Your task to perform on an android device: What's the weather going to be tomorrow? Image 0: 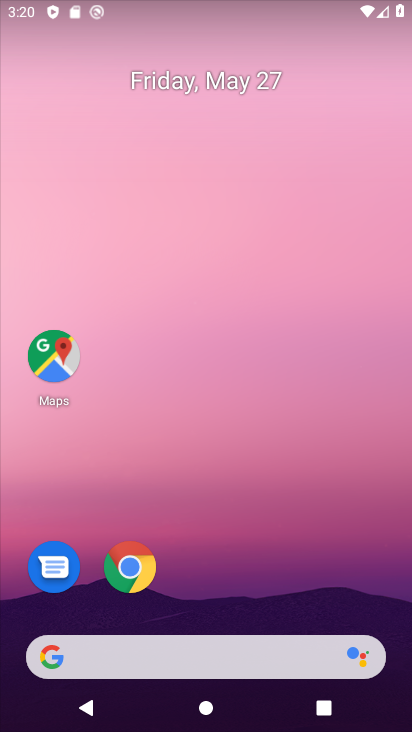
Step 0: click (201, 655)
Your task to perform on an android device: What's the weather going to be tomorrow? Image 1: 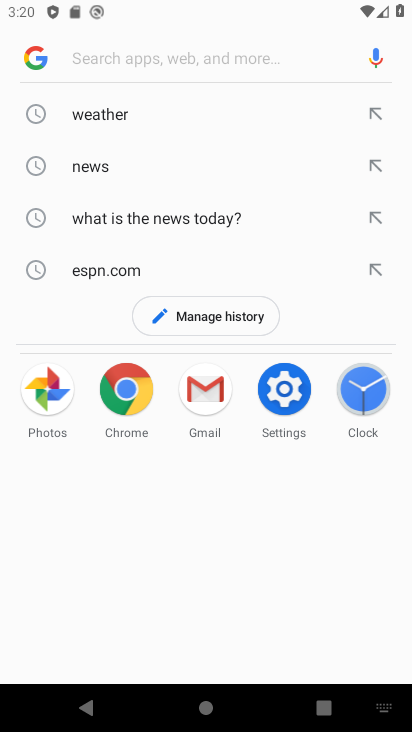
Step 1: click (106, 113)
Your task to perform on an android device: What's the weather going to be tomorrow? Image 2: 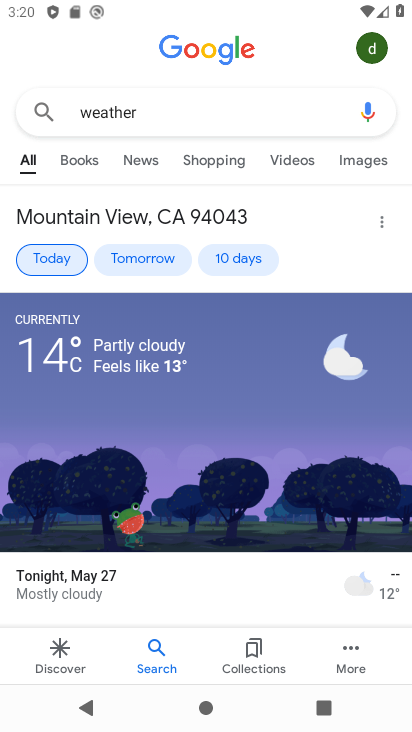
Step 2: click (148, 256)
Your task to perform on an android device: What's the weather going to be tomorrow? Image 3: 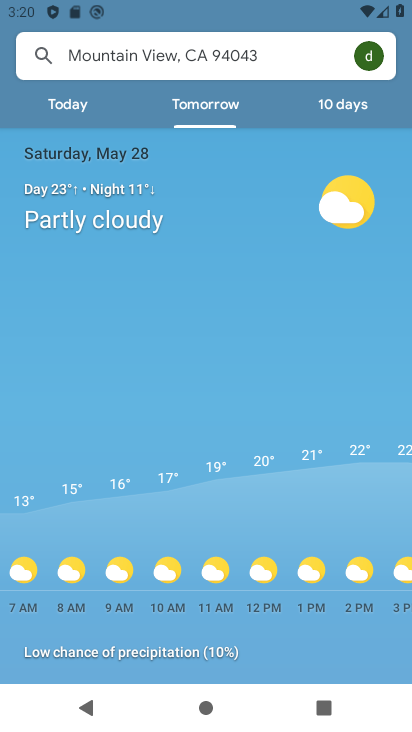
Step 3: task complete